Your task to perform on an android device: open wifi settings Image 0: 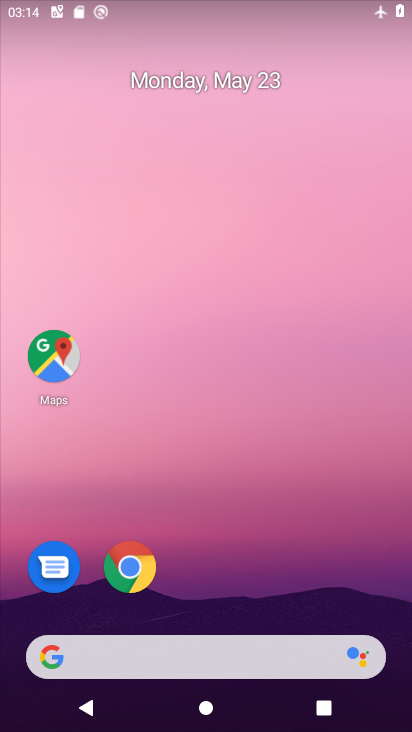
Step 0: drag from (273, 408) to (230, 25)
Your task to perform on an android device: open wifi settings Image 1: 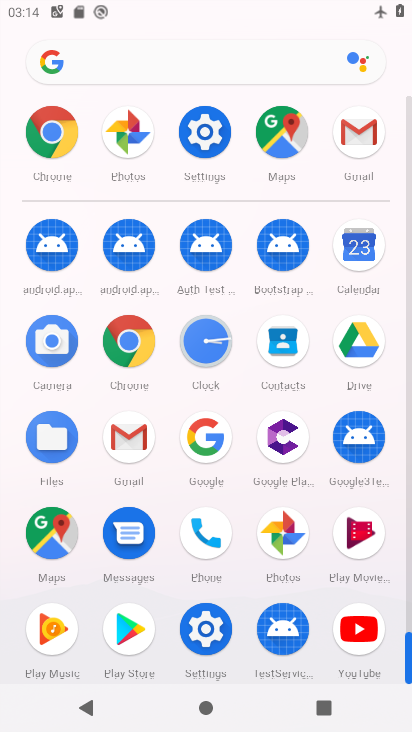
Step 1: click (193, 140)
Your task to perform on an android device: open wifi settings Image 2: 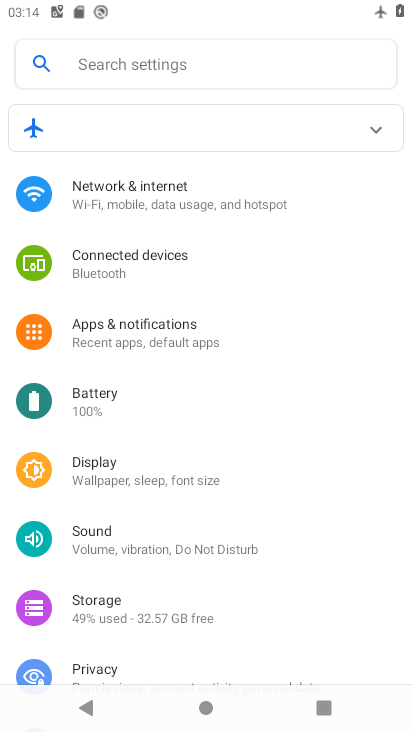
Step 2: click (189, 211)
Your task to perform on an android device: open wifi settings Image 3: 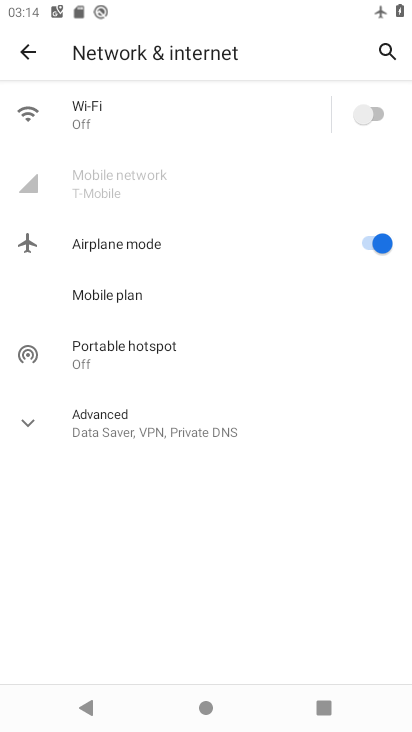
Step 3: click (212, 118)
Your task to perform on an android device: open wifi settings Image 4: 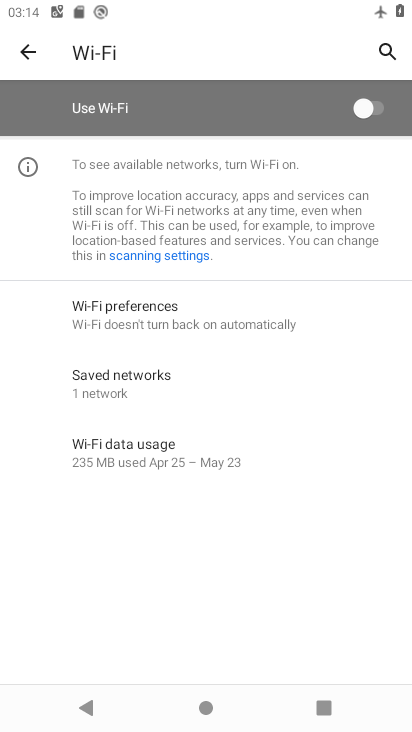
Step 4: task complete